Your task to perform on an android device: allow cookies in the chrome app Image 0: 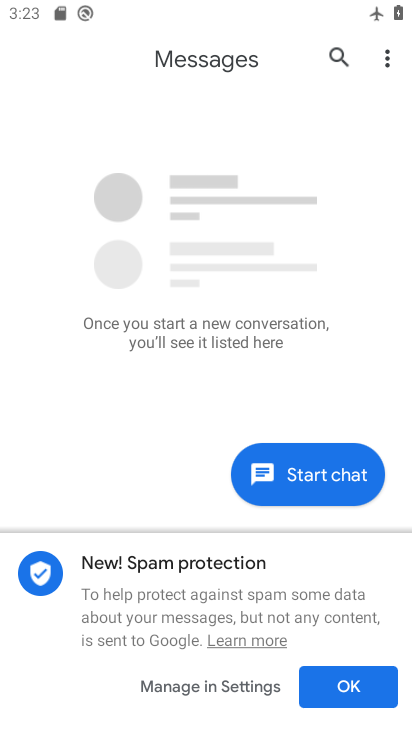
Step 0: press home button
Your task to perform on an android device: allow cookies in the chrome app Image 1: 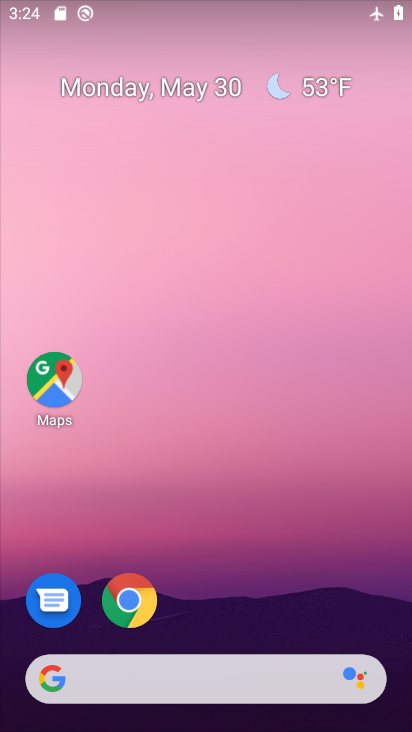
Step 1: drag from (255, 650) to (213, 13)
Your task to perform on an android device: allow cookies in the chrome app Image 2: 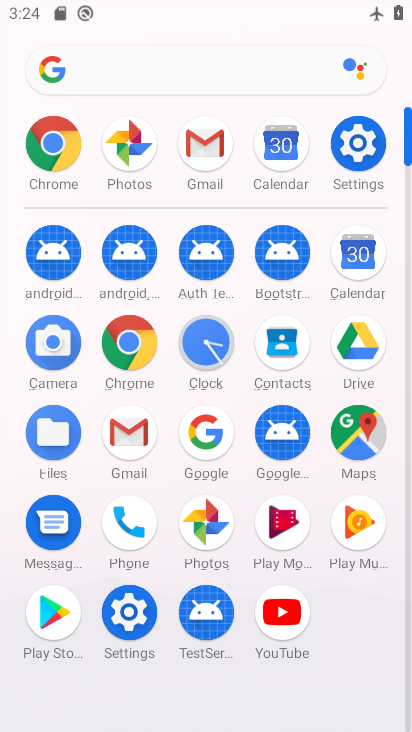
Step 2: click (52, 151)
Your task to perform on an android device: allow cookies in the chrome app Image 3: 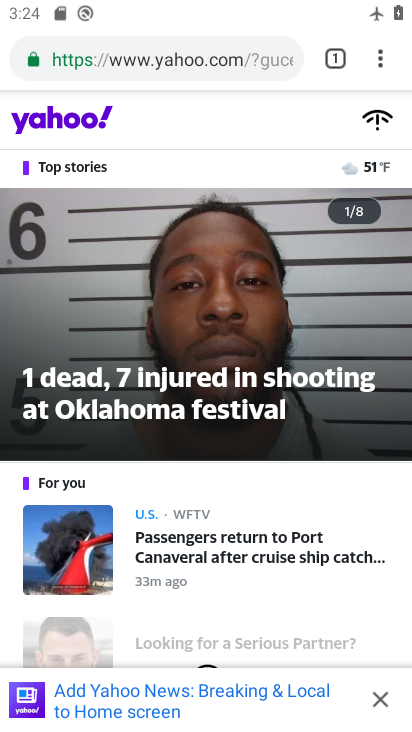
Step 3: drag from (383, 54) to (152, 632)
Your task to perform on an android device: allow cookies in the chrome app Image 4: 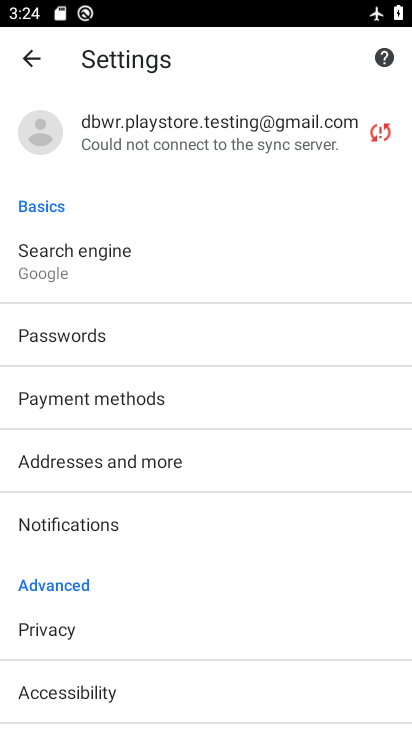
Step 4: drag from (133, 566) to (177, 206)
Your task to perform on an android device: allow cookies in the chrome app Image 5: 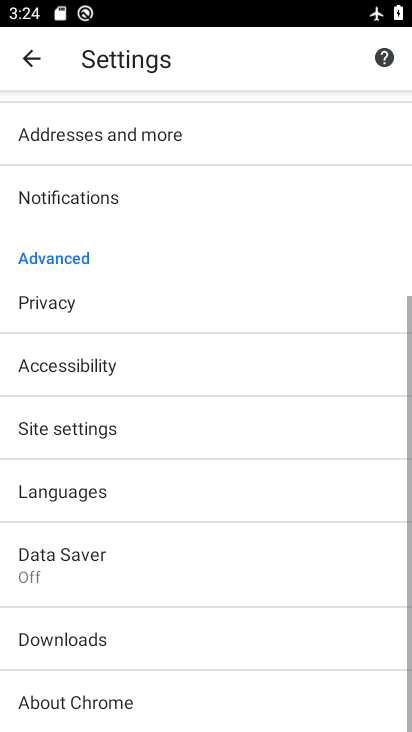
Step 5: drag from (148, 655) to (164, 442)
Your task to perform on an android device: allow cookies in the chrome app Image 6: 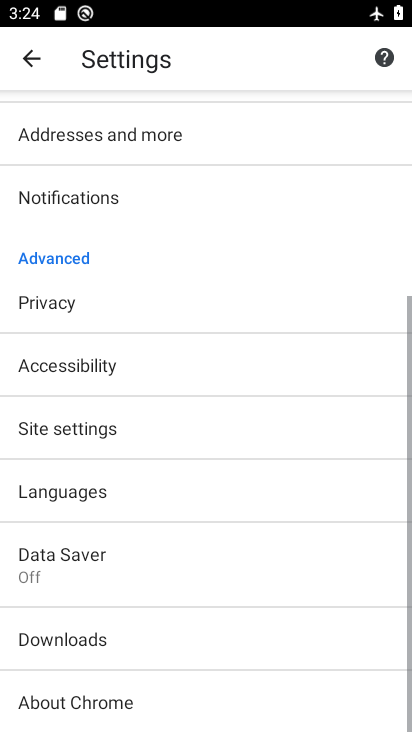
Step 6: click (124, 428)
Your task to perform on an android device: allow cookies in the chrome app Image 7: 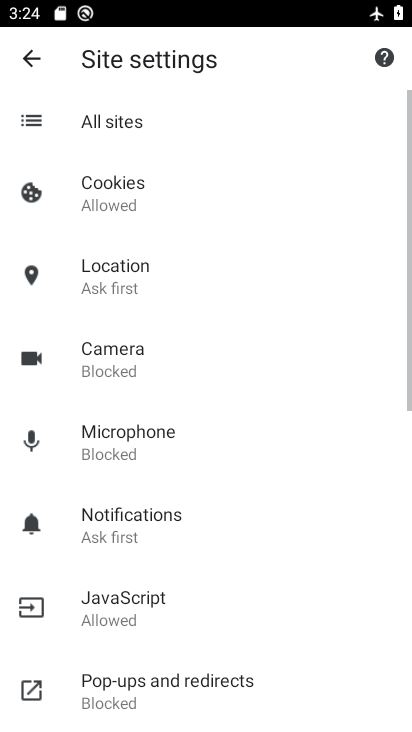
Step 7: click (91, 204)
Your task to perform on an android device: allow cookies in the chrome app Image 8: 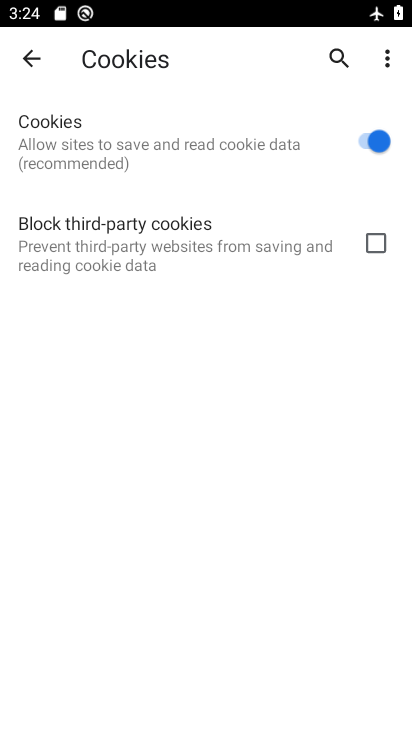
Step 8: task complete